Your task to perform on an android device: Open the calendar app, open the side menu, and click the "Day" option Image 0: 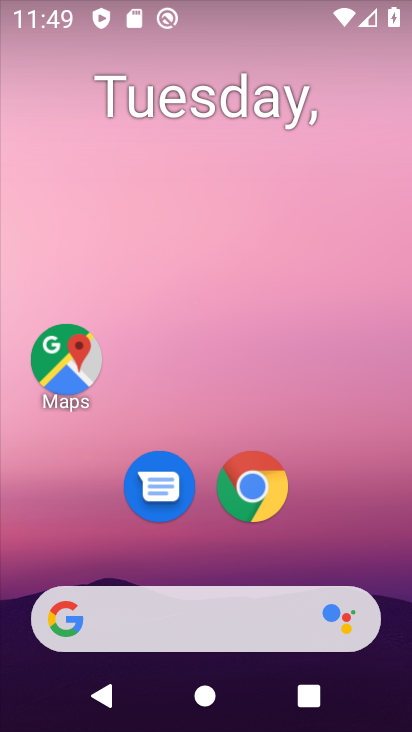
Step 0: drag from (87, 552) to (146, 239)
Your task to perform on an android device: Open the calendar app, open the side menu, and click the "Day" option Image 1: 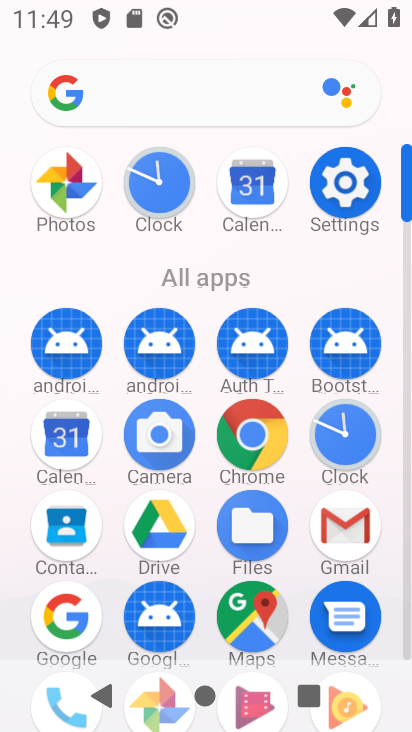
Step 1: click (197, 264)
Your task to perform on an android device: Open the calendar app, open the side menu, and click the "Day" option Image 2: 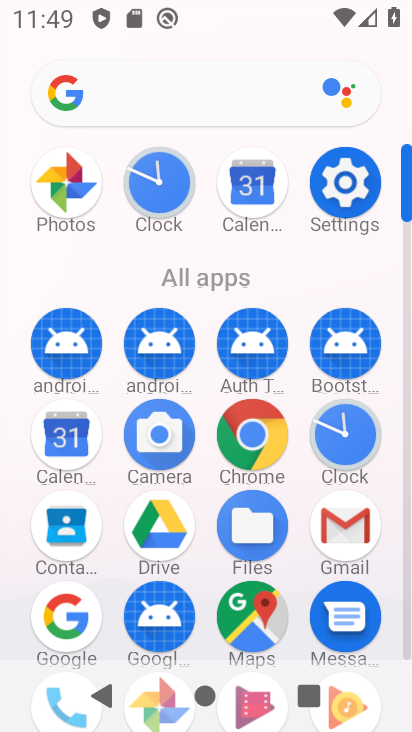
Step 2: click (69, 463)
Your task to perform on an android device: Open the calendar app, open the side menu, and click the "Day" option Image 3: 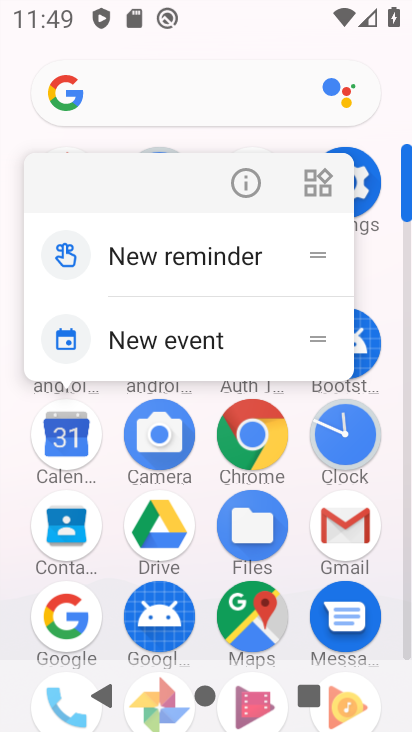
Step 3: click (68, 446)
Your task to perform on an android device: Open the calendar app, open the side menu, and click the "Day" option Image 4: 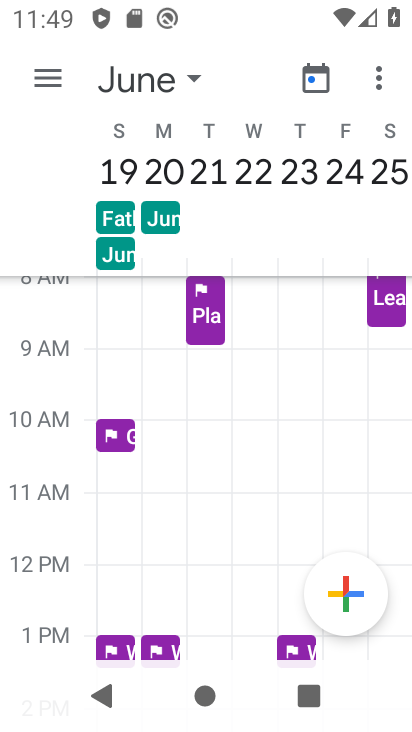
Step 4: click (32, 122)
Your task to perform on an android device: Open the calendar app, open the side menu, and click the "Day" option Image 5: 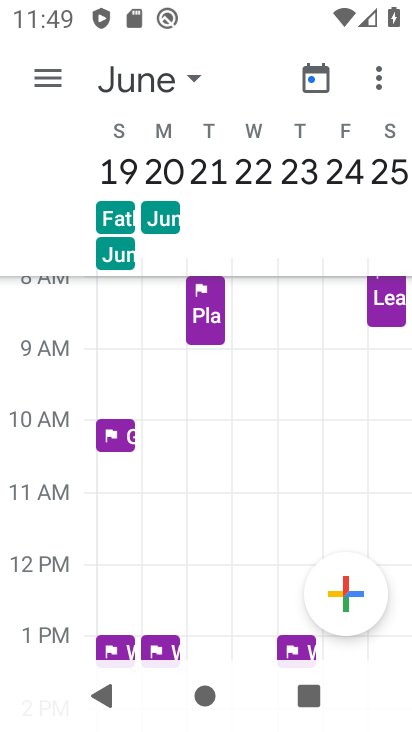
Step 5: click (51, 76)
Your task to perform on an android device: Open the calendar app, open the side menu, and click the "Day" option Image 6: 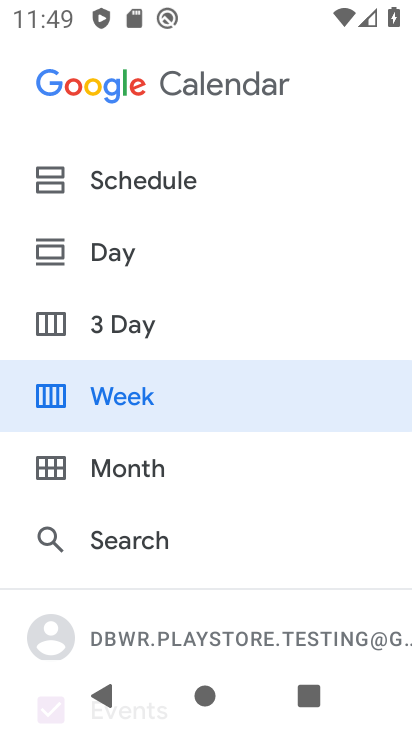
Step 6: click (125, 245)
Your task to perform on an android device: Open the calendar app, open the side menu, and click the "Day" option Image 7: 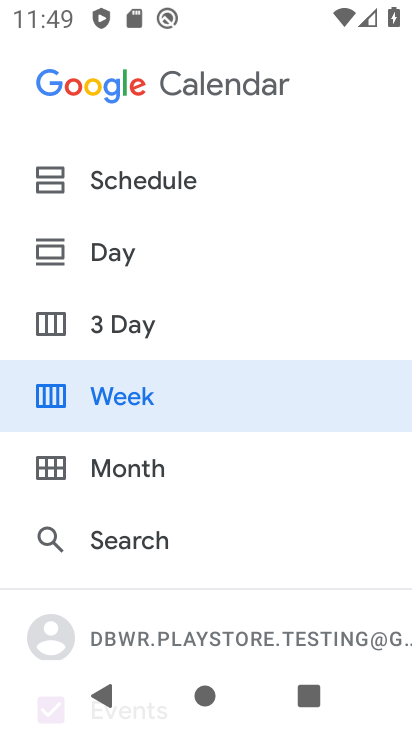
Step 7: click (138, 256)
Your task to perform on an android device: Open the calendar app, open the side menu, and click the "Day" option Image 8: 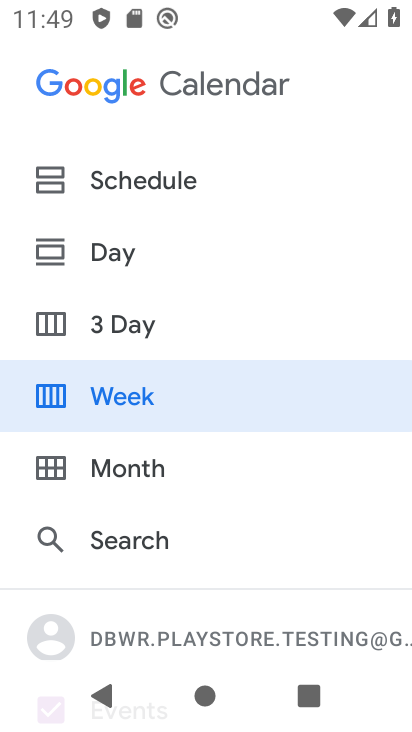
Step 8: click (138, 256)
Your task to perform on an android device: Open the calendar app, open the side menu, and click the "Day" option Image 9: 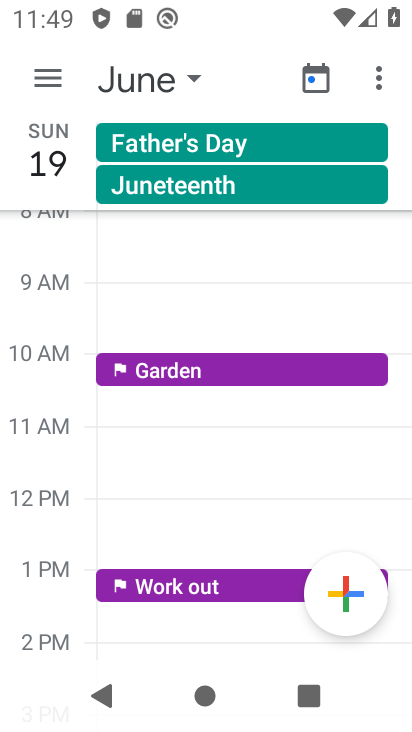
Step 9: task complete